Your task to perform on an android device: search for starred emails in the gmail app Image 0: 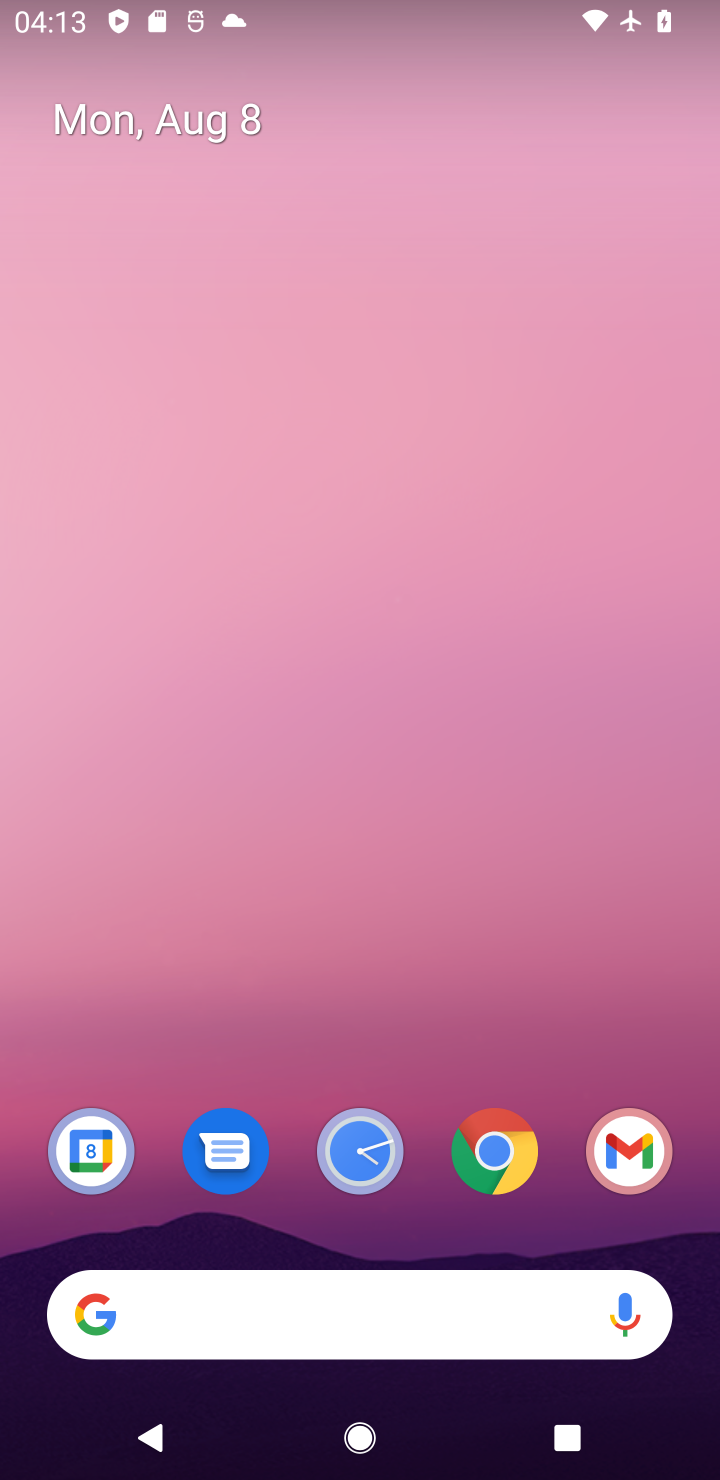
Step 0: click (623, 1158)
Your task to perform on an android device: search for starred emails in the gmail app Image 1: 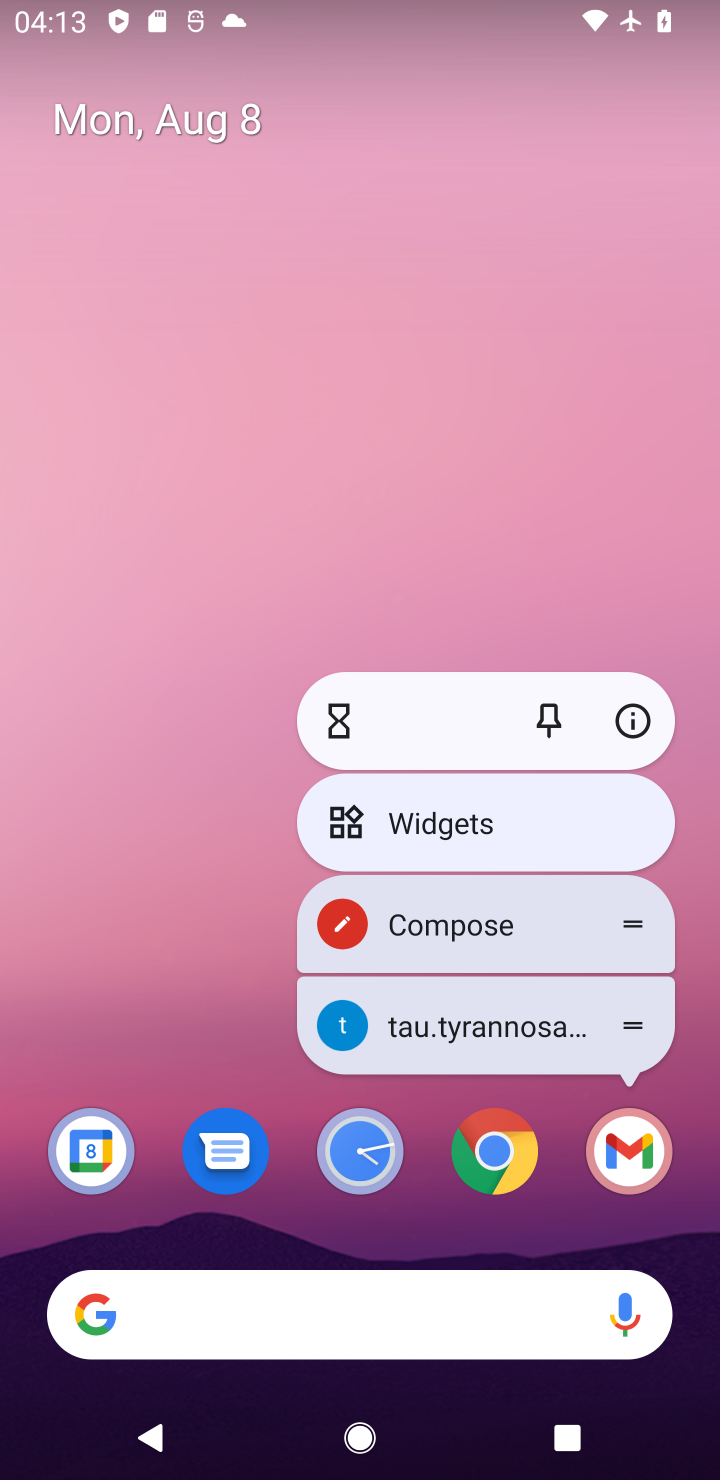
Step 1: click (623, 1158)
Your task to perform on an android device: search for starred emails in the gmail app Image 2: 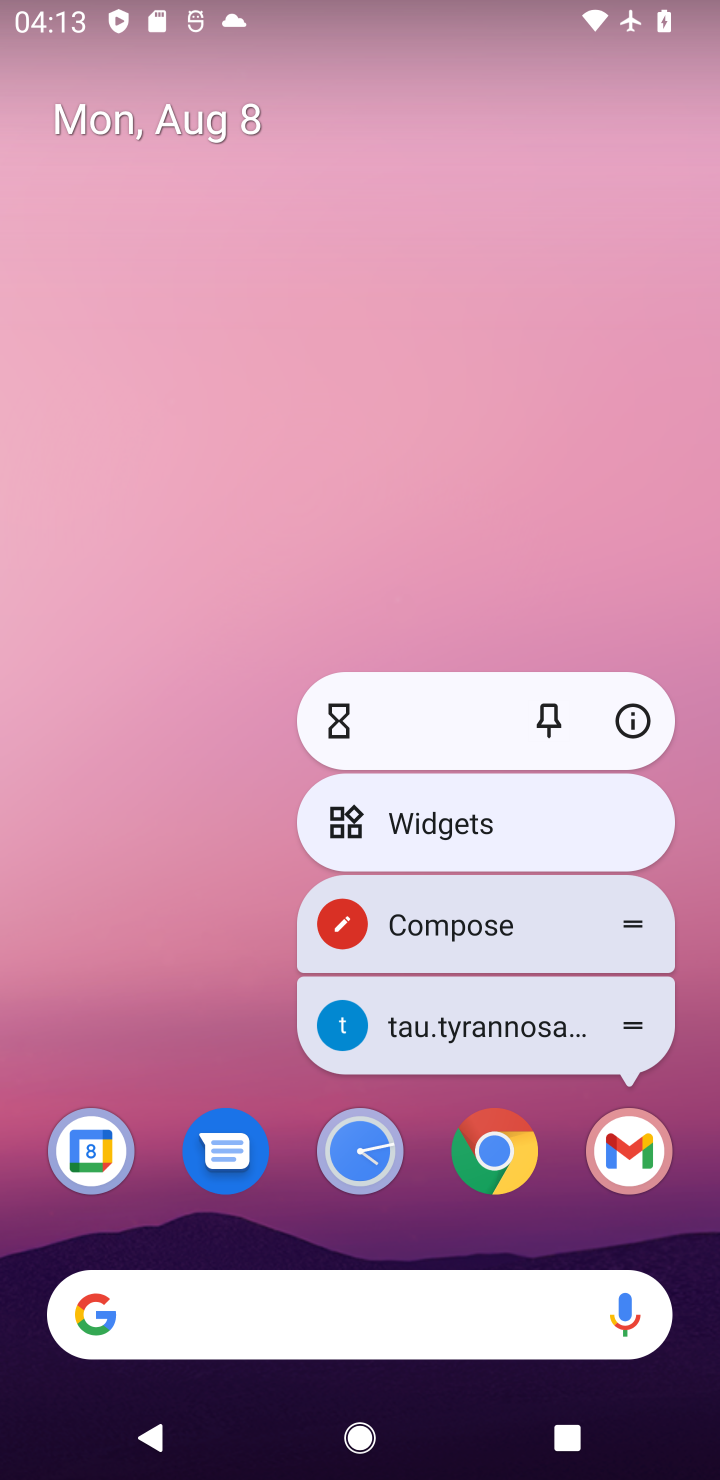
Step 2: click (623, 1158)
Your task to perform on an android device: search for starred emails in the gmail app Image 3: 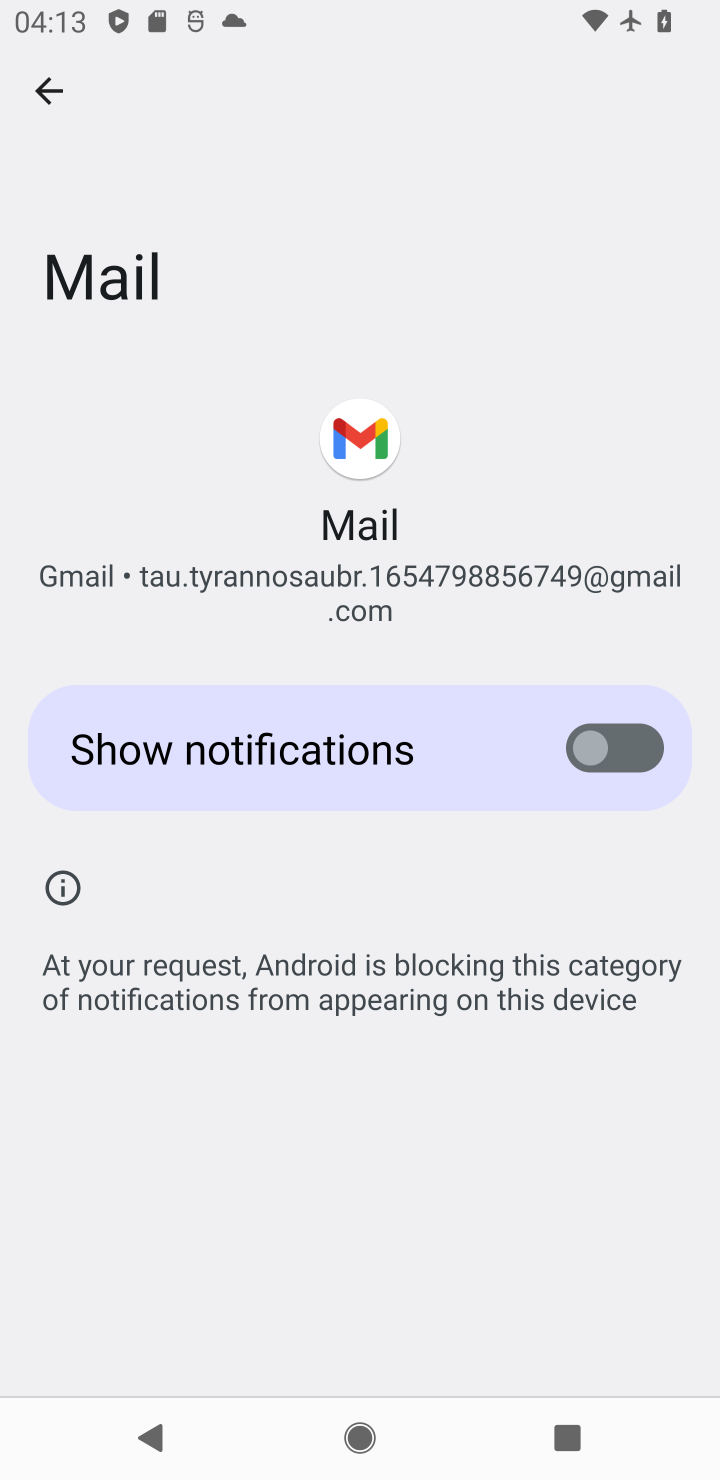
Step 3: click (44, 85)
Your task to perform on an android device: search for starred emails in the gmail app Image 4: 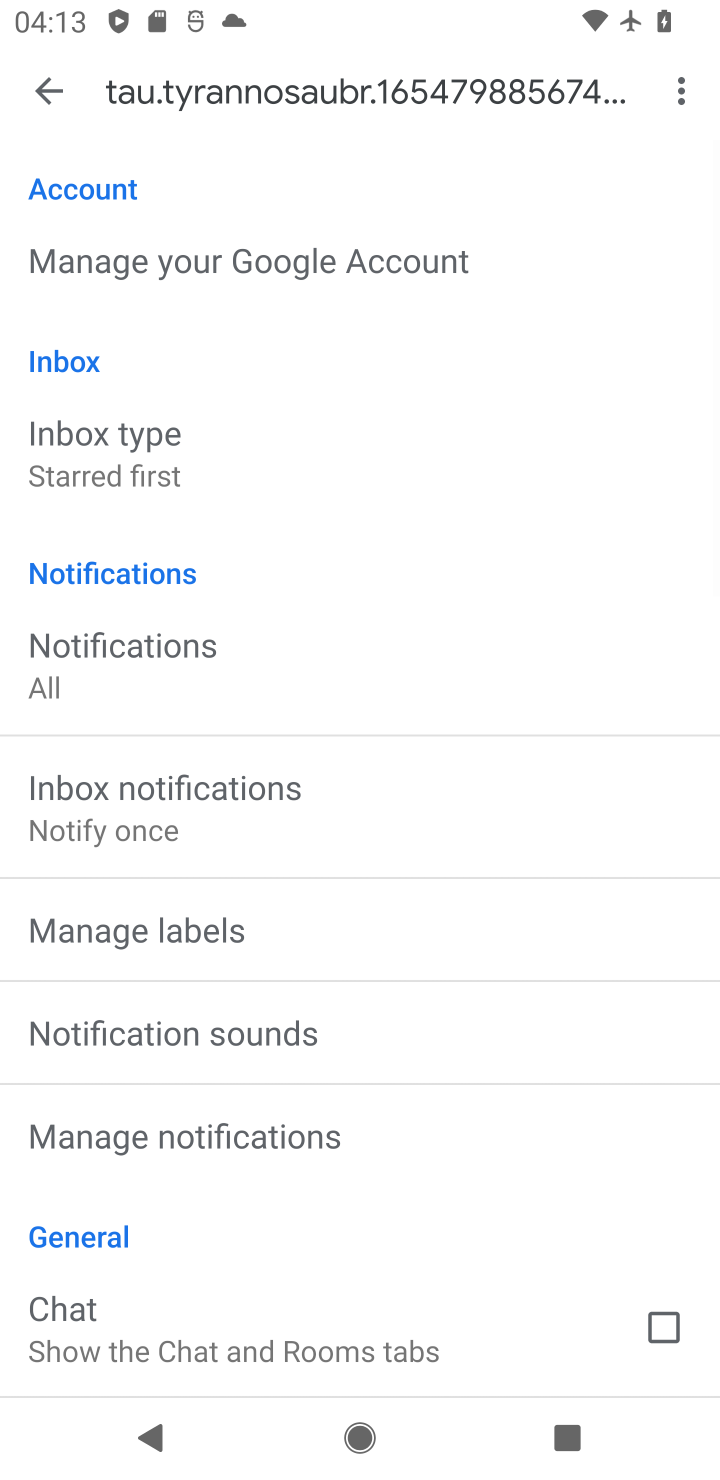
Step 4: click (42, 104)
Your task to perform on an android device: search for starred emails in the gmail app Image 5: 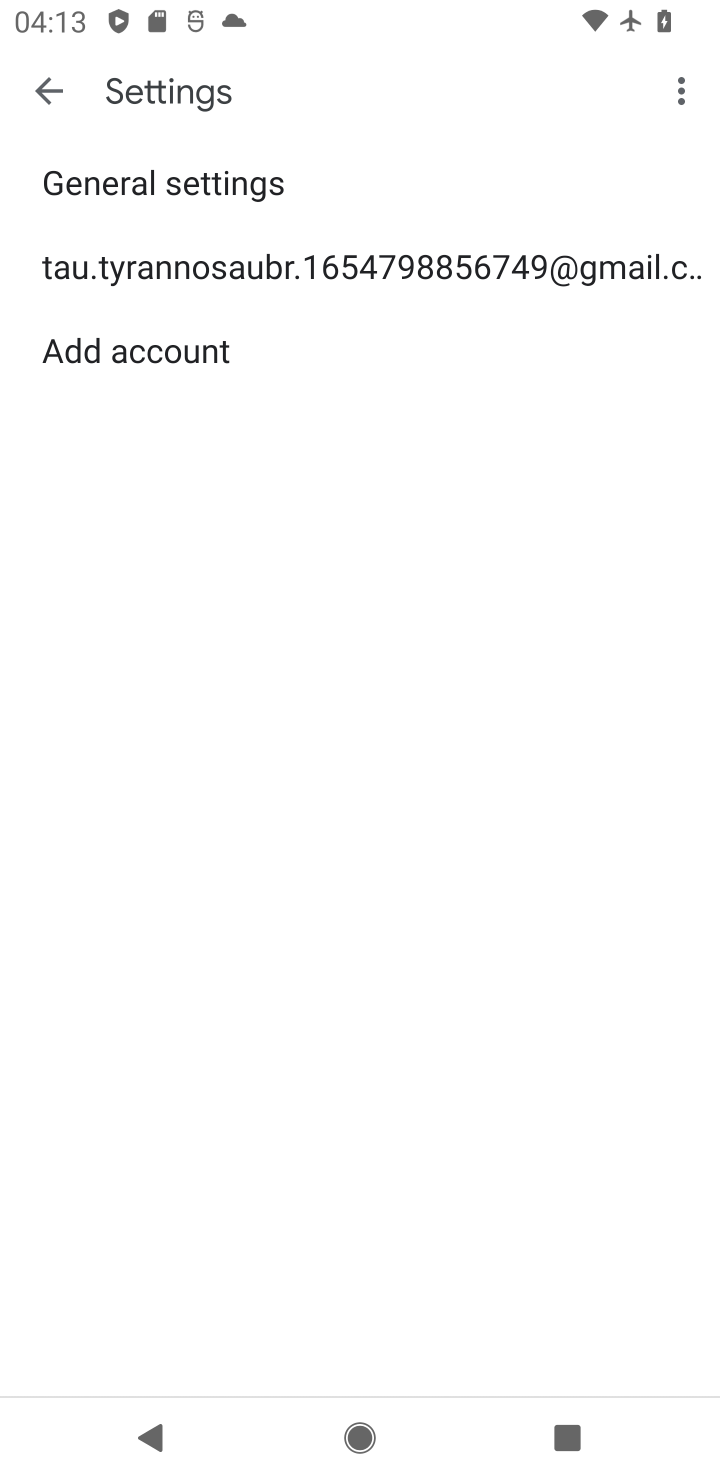
Step 5: click (42, 104)
Your task to perform on an android device: search for starred emails in the gmail app Image 6: 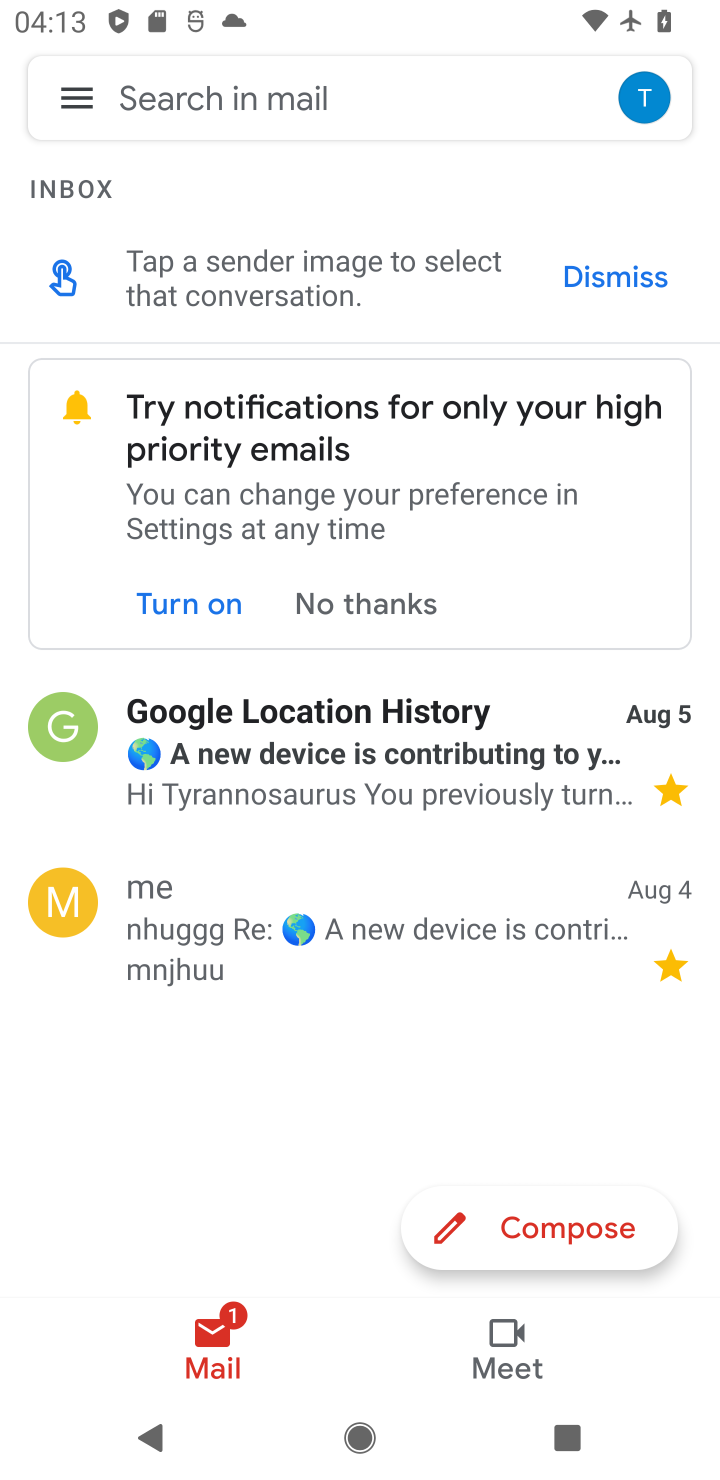
Step 6: click (83, 104)
Your task to perform on an android device: search for starred emails in the gmail app Image 7: 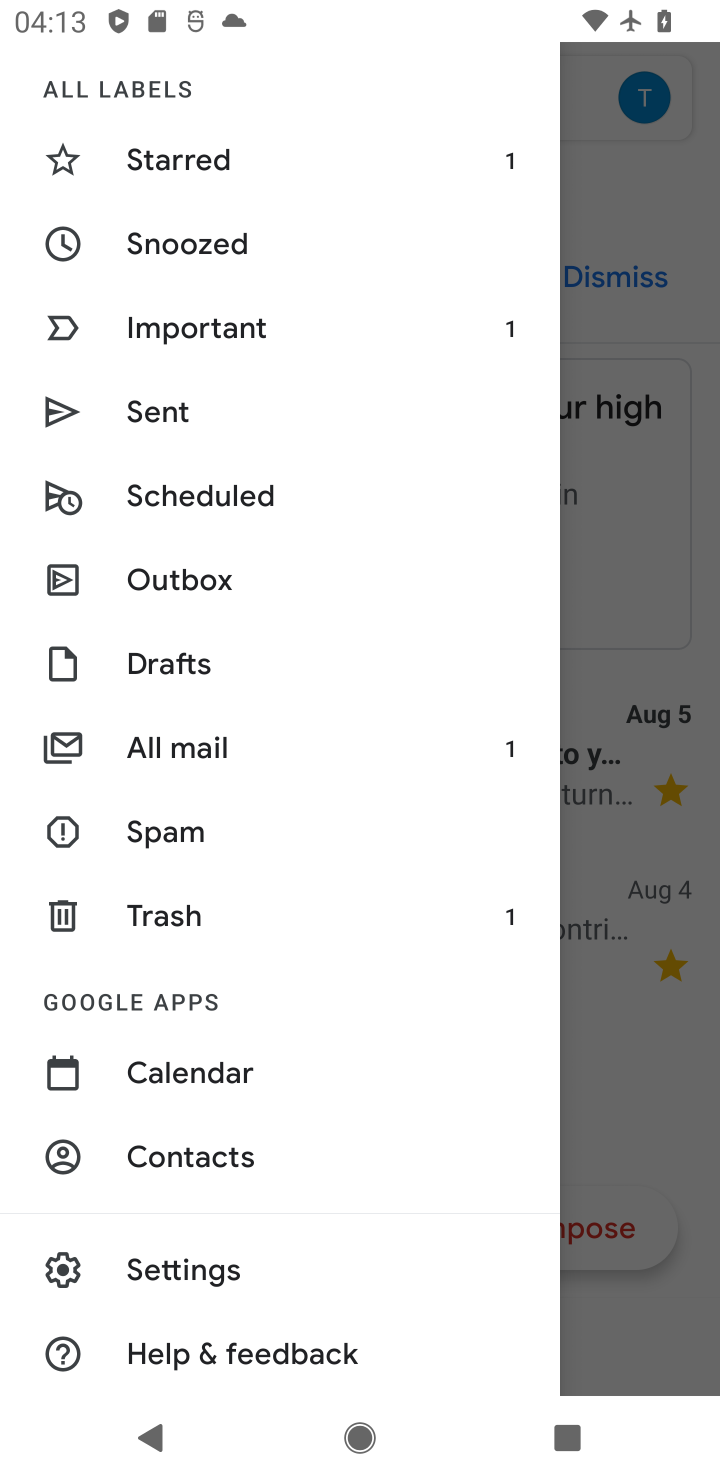
Step 7: click (265, 182)
Your task to perform on an android device: search for starred emails in the gmail app Image 8: 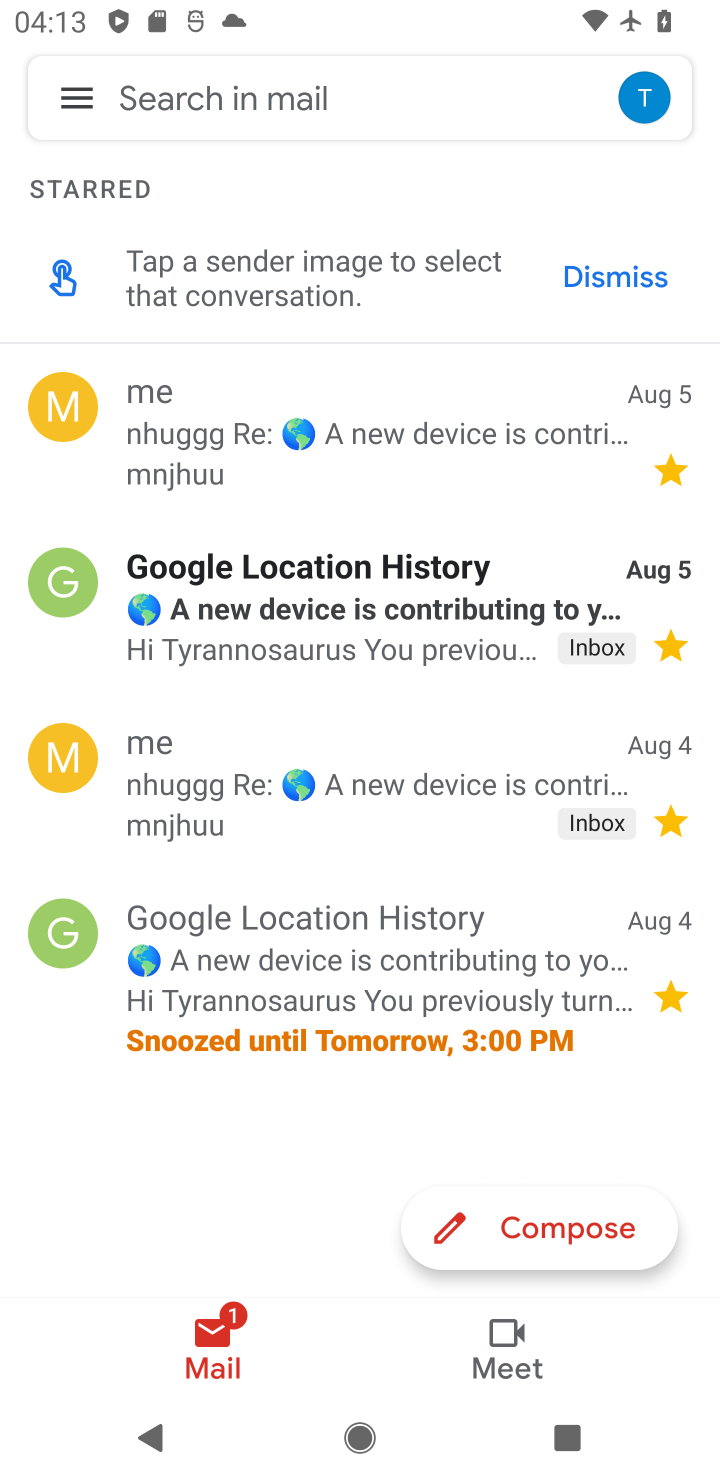
Step 8: task complete